Your task to perform on an android device: Open display settings Image 0: 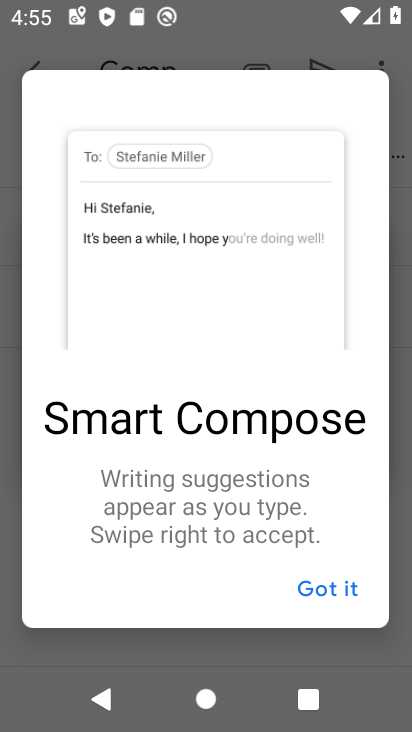
Step 0: press home button
Your task to perform on an android device: Open display settings Image 1: 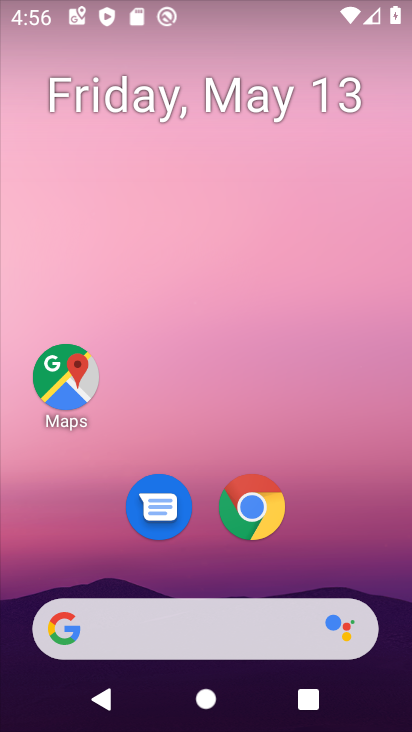
Step 1: drag from (335, 529) to (263, 37)
Your task to perform on an android device: Open display settings Image 2: 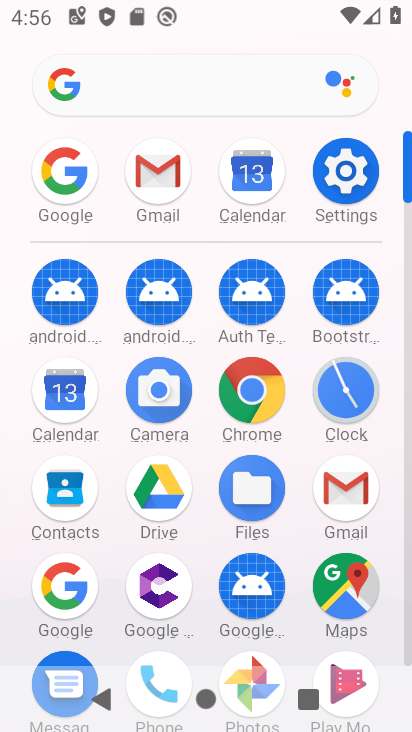
Step 2: click (357, 175)
Your task to perform on an android device: Open display settings Image 3: 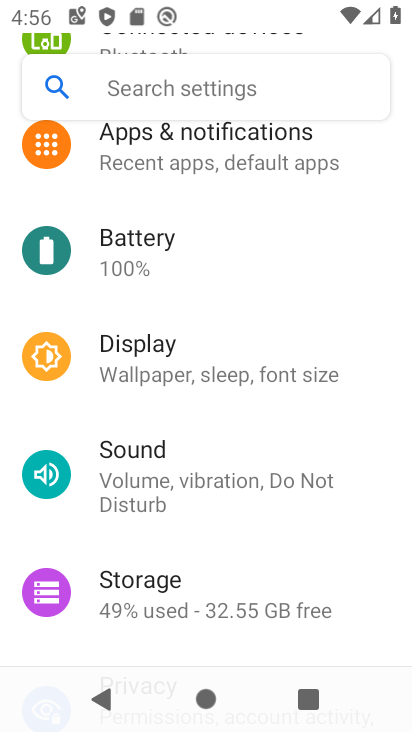
Step 3: click (225, 338)
Your task to perform on an android device: Open display settings Image 4: 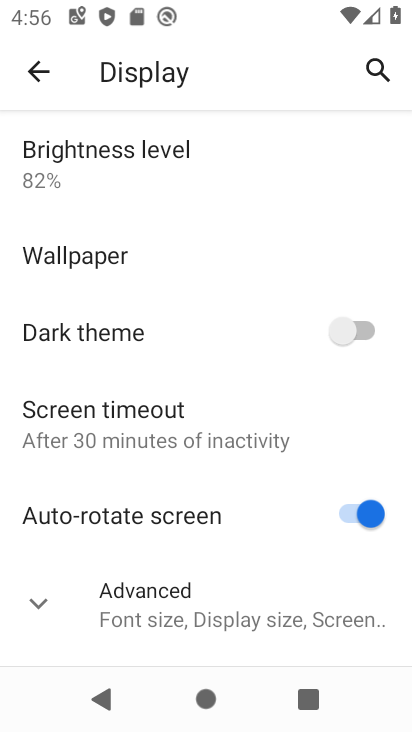
Step 4: task complete